Your task to perform on an android device: Open Amazon Image 0: 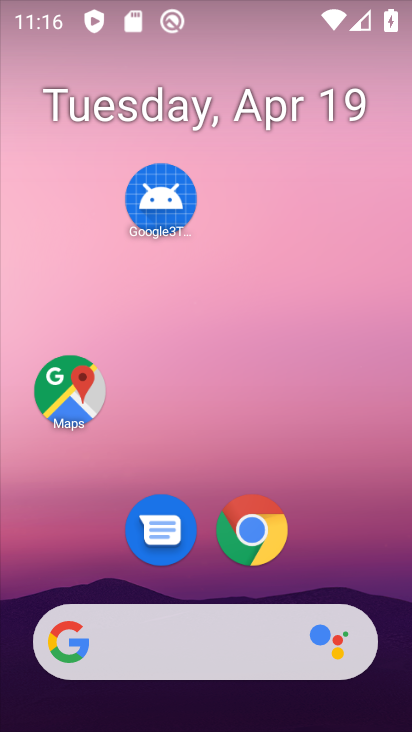
Step 0: drag from (338, 530) to (307, 104)
Your task to perform on an android device: Open Amazon Image 1: 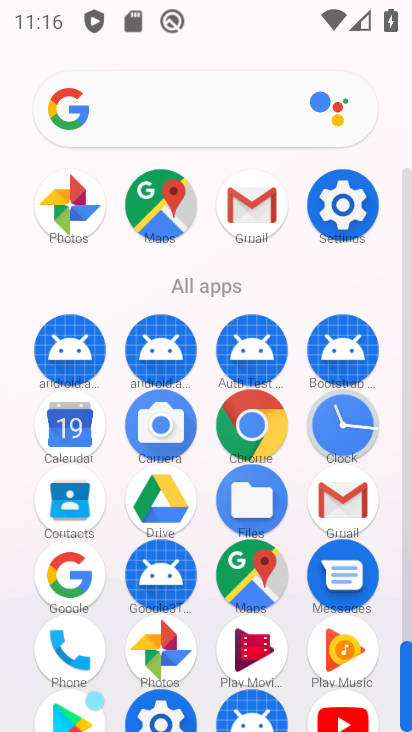
Step 1: click (248, 420)
Your task to perform on an android device: Open Amazon Image 2: 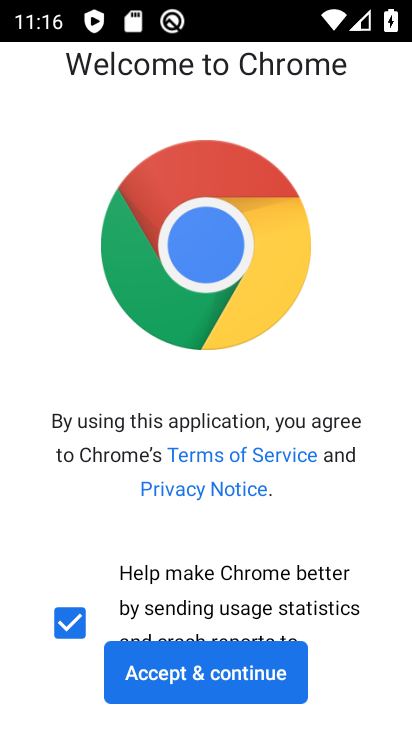
Step 2: click (266, 674)
Your task to perform on an android device: Open Amazon Image 3: 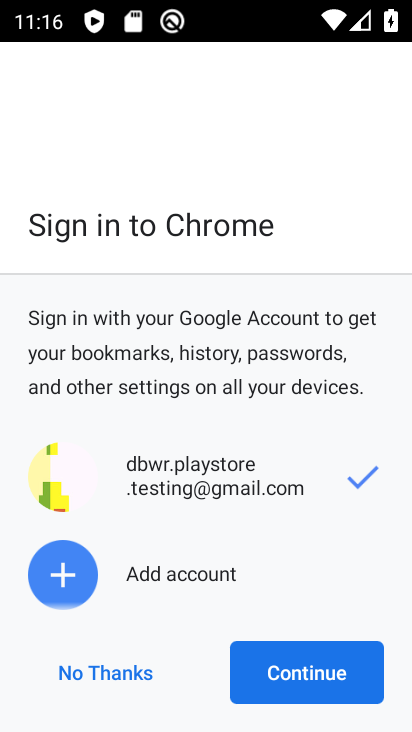
Step 3: click (270, 666)
Your task to perform on an android device: Open Amazon Image 4: 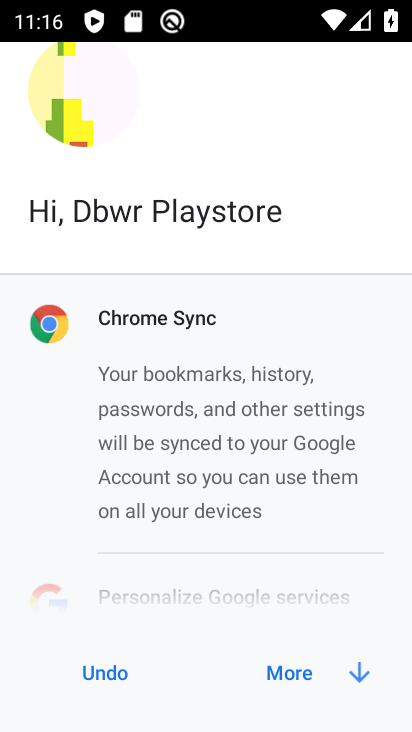
Step 4: click (282, 667)
Your task to perform on an android device: Open Amazon Image 5: 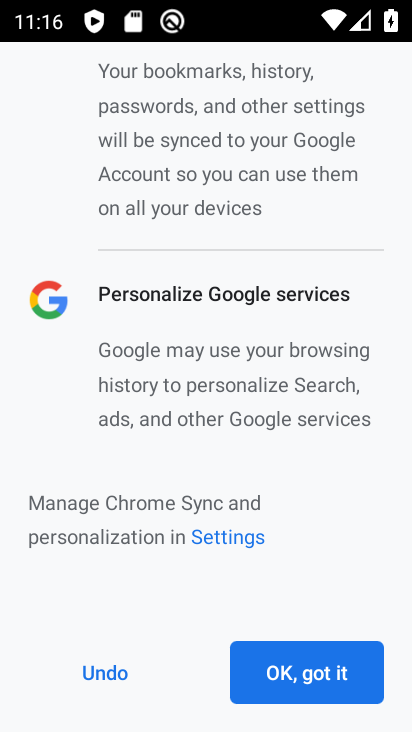
Step 5: click (285, 675)
Your task to perform on an android device: Open Amazon Image 6: 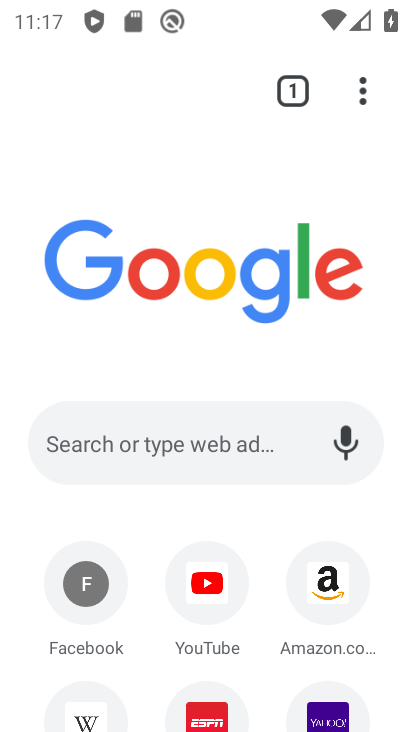
Step 6: click (314, 582)
Your task to perform on an android device: Open Amazon Image 7: 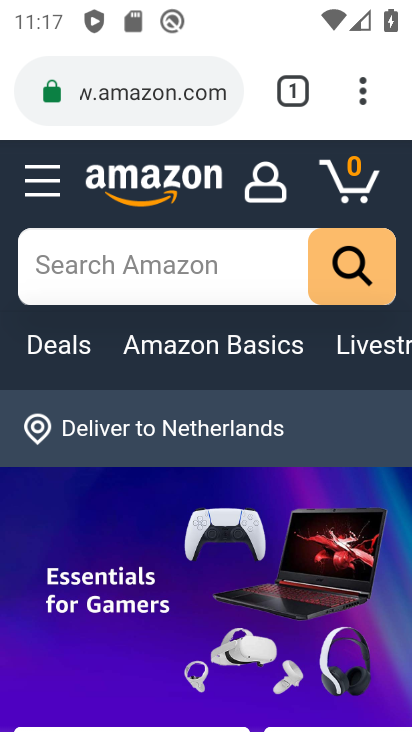
Step 7: task complete